Your task to perform on an android device: stop showing notifications on the lock screen Image 0: 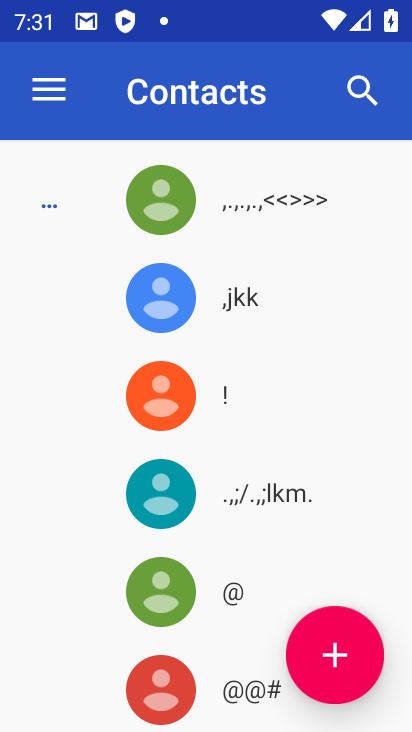
Step 0: press home button
Your task to perform on an android device: stop showing notifications on the lock screen Image 1: 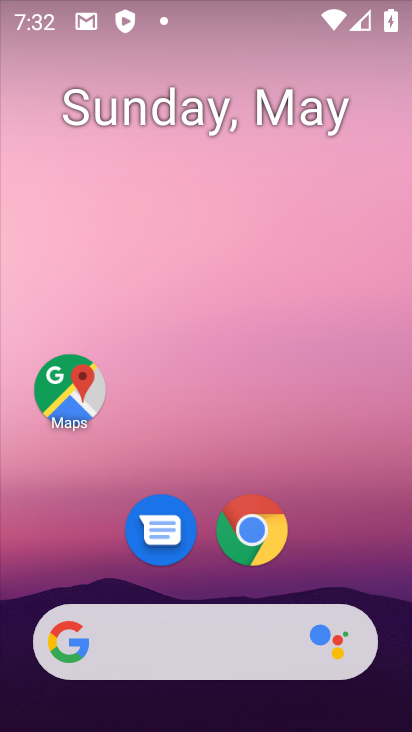
Step 1: drag from (212, 598) to (200, 8)
Your task to perform on an android device: stop showing notifications on the lock screen Image 2: 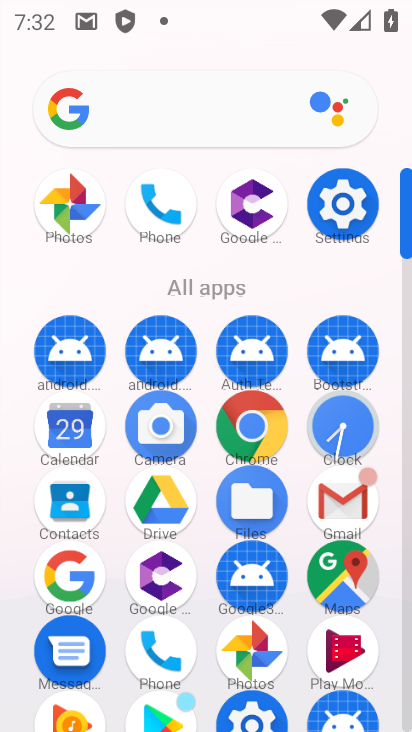
Step 2: click (338, 212)
Your task to perform on an android device: stop showing notifications on the lock screen Image 3: 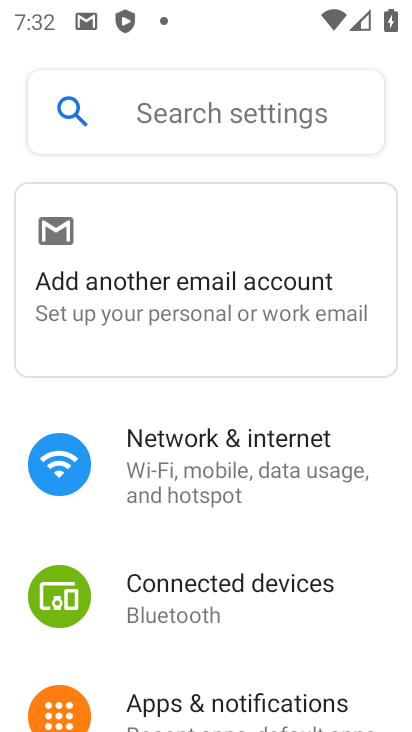
Step 3: click (235, 671)
Your task to perform on an android device: stop showing notifications on the lock screen Image 4: 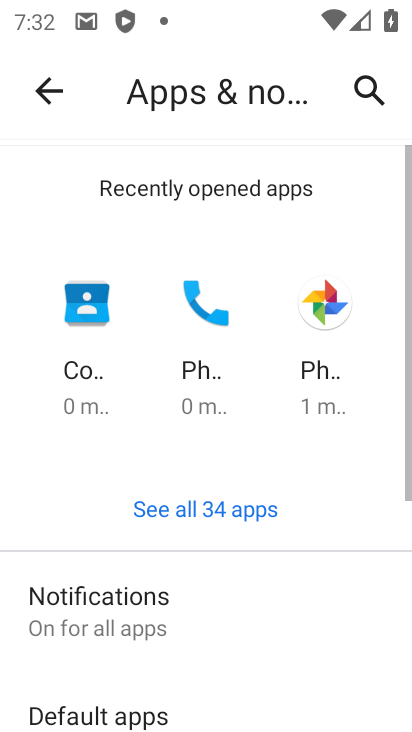
Step 4: drag from (169, 639) to (139, 21)
Your task to perform on an android device: stop showing notifications on the lock screen Image 5: 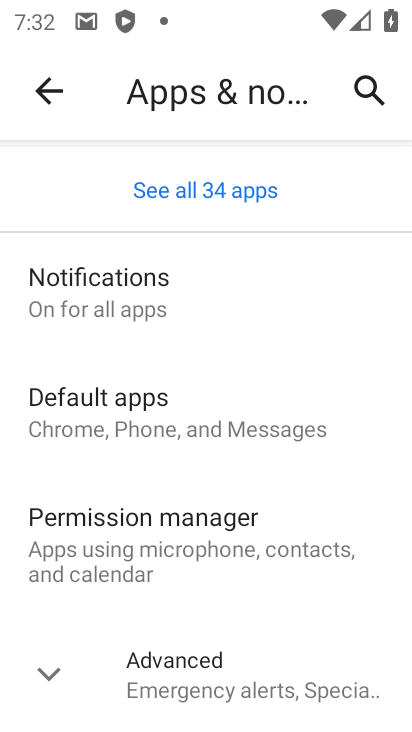
Step 5: click (127, 323)
Your task to perform on an android device: stop showing notifications on the lock screen Image 6: 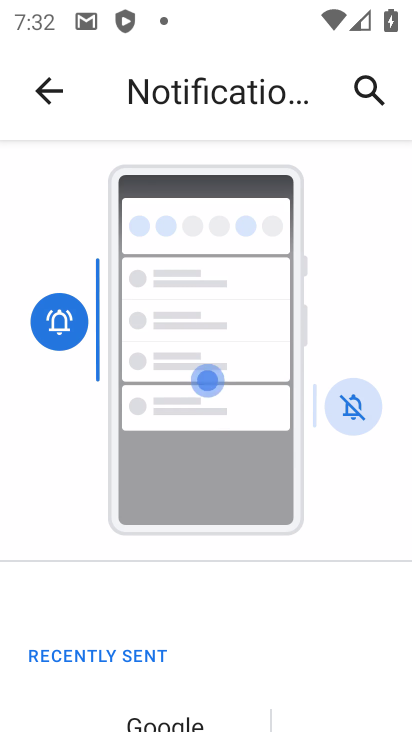
Step 6: drag from (213, 610) to (104, 16)
Your task to perform on an android device: stop showing notifications on the lock screen Image 7: 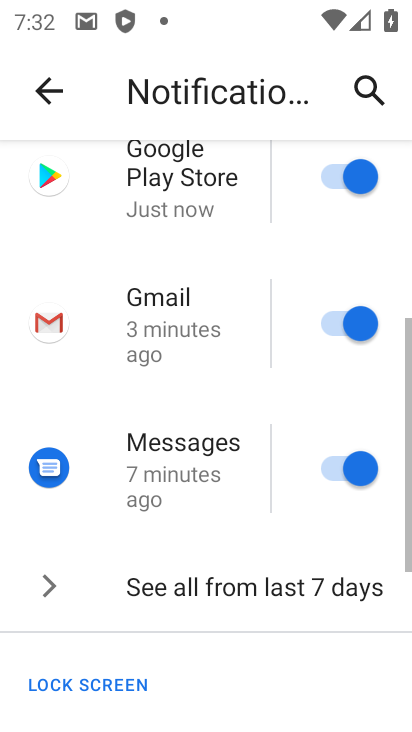
Step 7: drag from (132, 668) to (95, 336)
Your task to perform on an android device: stop showing notifications on the lock screen Image 8: 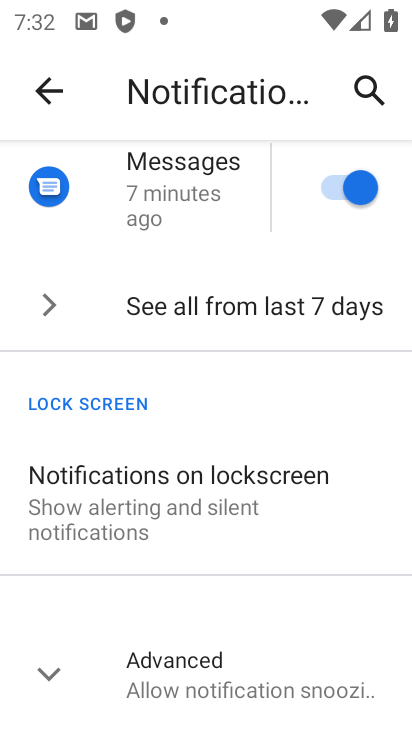
Step 8: click (102, 552)
Your task to perform on an android device: stop showing notifications on the lock screen Image 9: 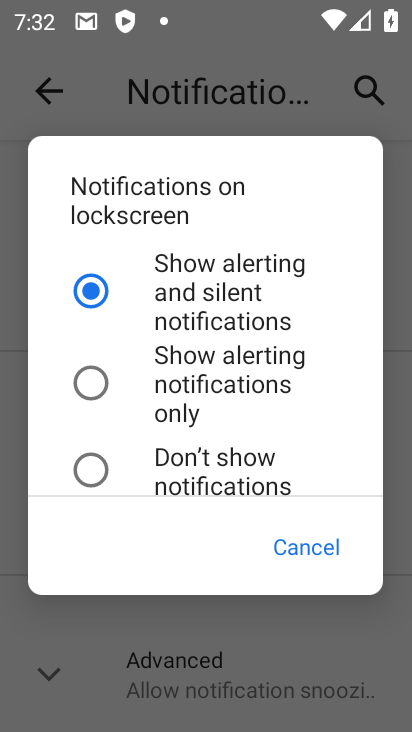
Step 9: click (132, 462)
Your task to perform on an android device: stop showing notifications on the lock screen Image 10: 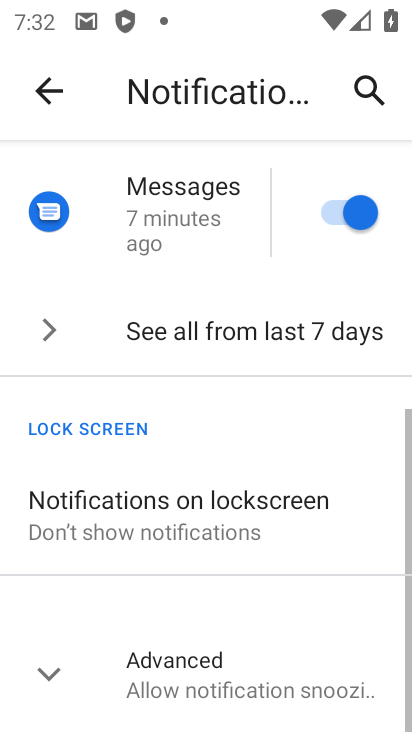
Step 10: task complete